Your task to perform on an android device: set the timer Image 0: 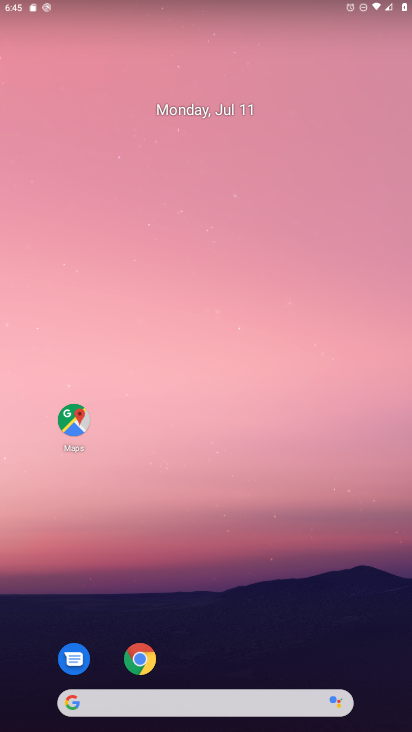
Step 0: drag from (373, 641) to (349, 73)
Your task to perform on an android device: set the timer Image 1: 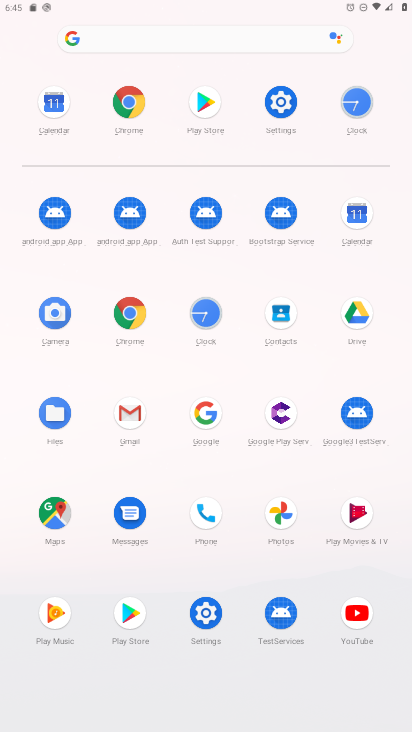
Step 1: click (206, 312)
Your task to perform on an android device: set the timer Image 2: 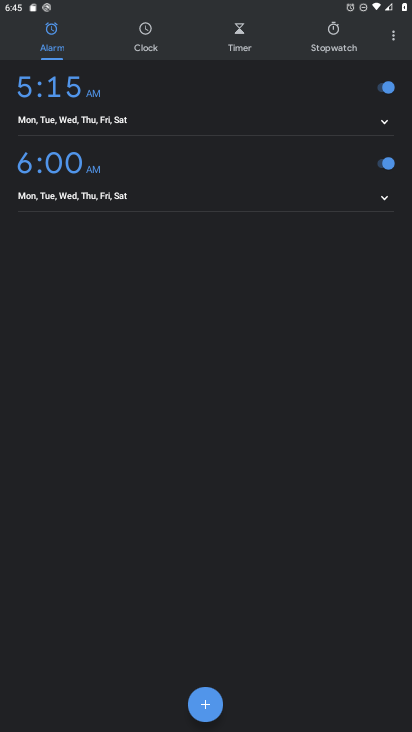
Step 2: click (236, 43)
Your task to perform on an android device: set the timer Image 3: 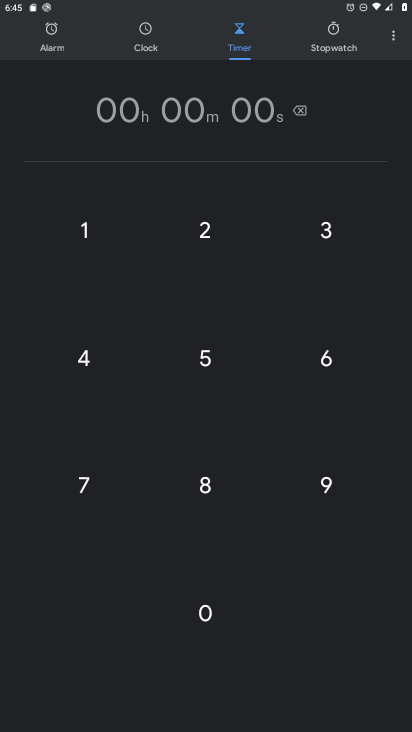
Step 3: click (82, 226)
Your task to perform on an android device: set the timer Image 4: 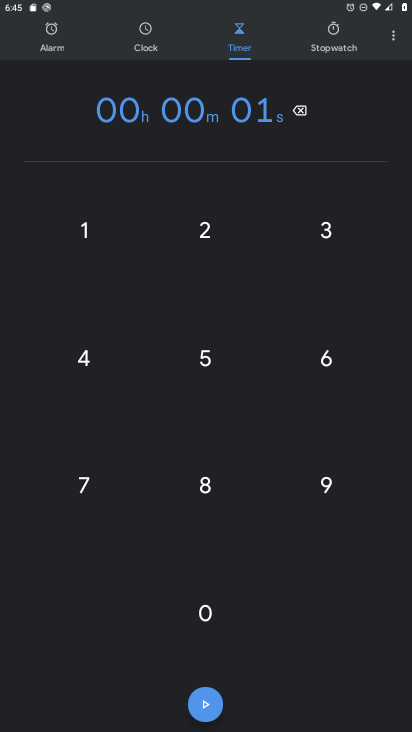
Step 4: click (324, 234)
Your task to perform on an android device: set the timer Image 5: 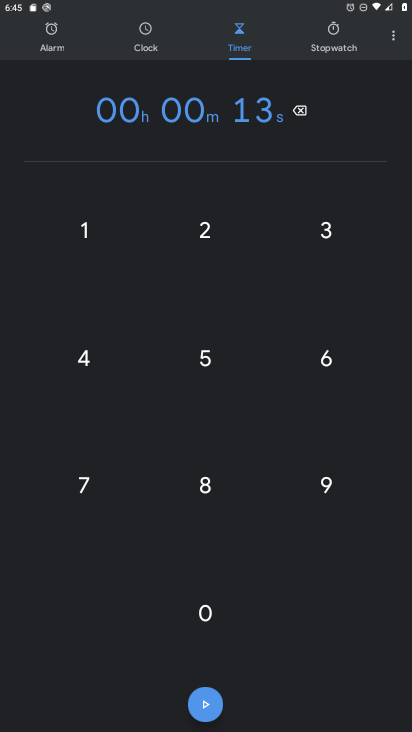
Step 5: click (205, 613)
Your task to perform on an android device: set the timer Image 6: 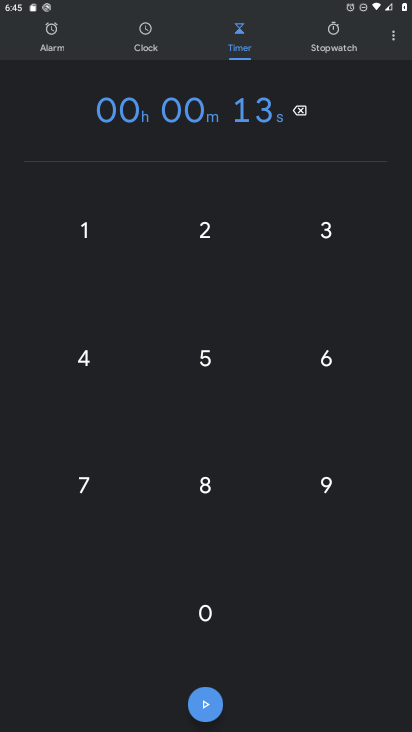
Step 6: click (205, 613)
Your task to perform on an android device: set the timer Image 7: 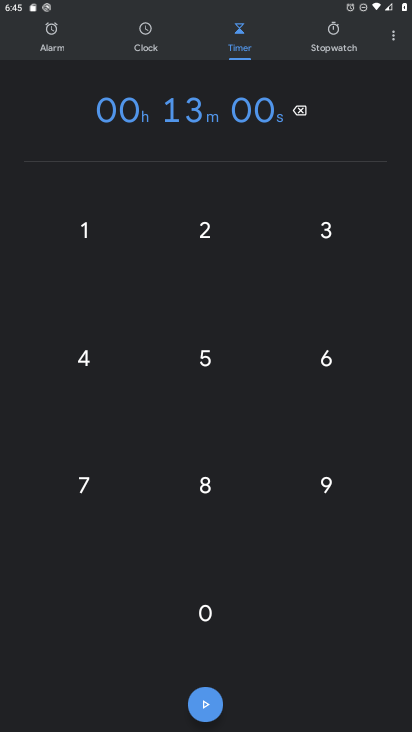
Step 7: click (205, 613)
Your task to perform on an android device: set the timer Image 8: 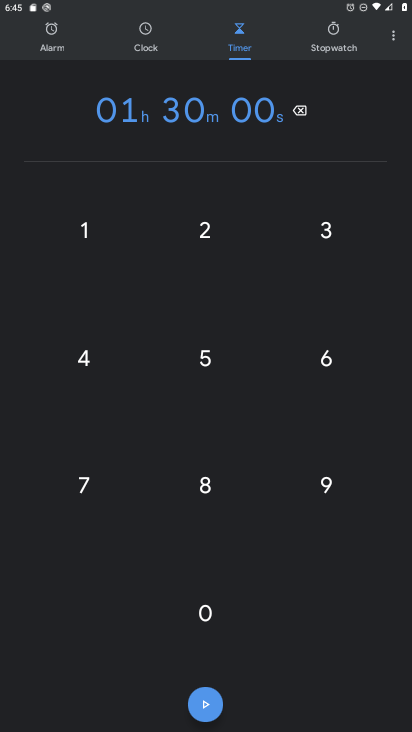
Step 8: task complete